Your task to perform on an android device: turn off translation in the chrome app Image 0: 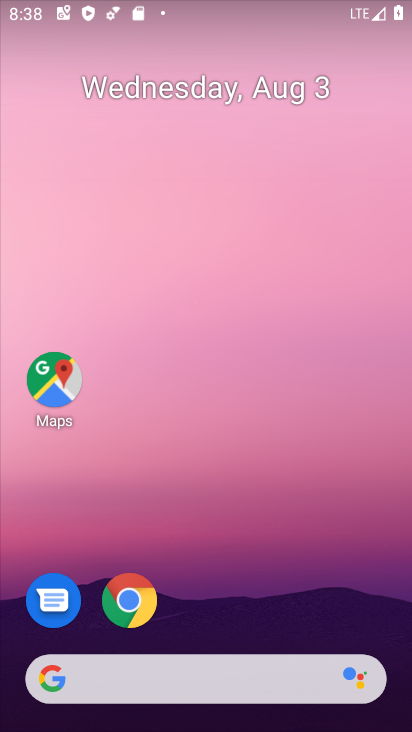
Step 0: click (134, 605)
Your task to perform on an android device: turn off translation in the chrome app Image 1: 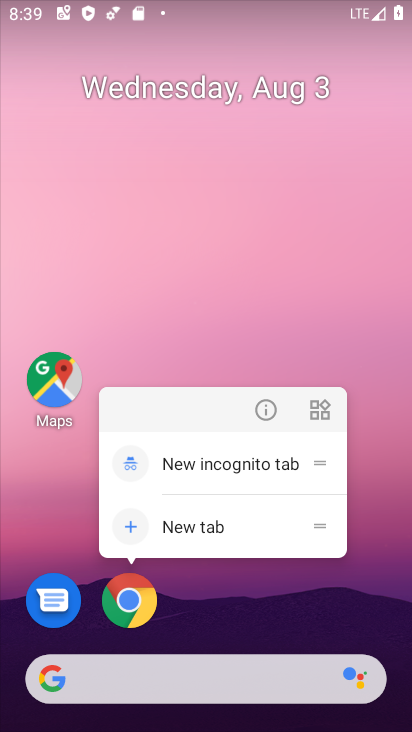
Step 1: click (139, 598)
Your task to perform on an android device: turn off translation in the chrome app Image 2: 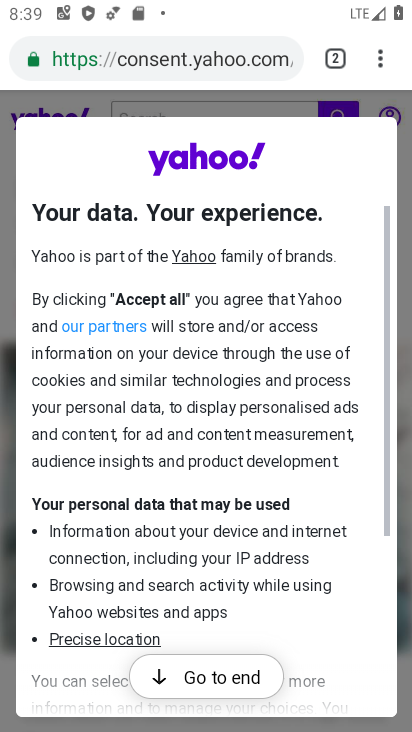
Step 2: click (378, 55)
Your task to perform on an android device: turn off translation in the chrome app Image 3: 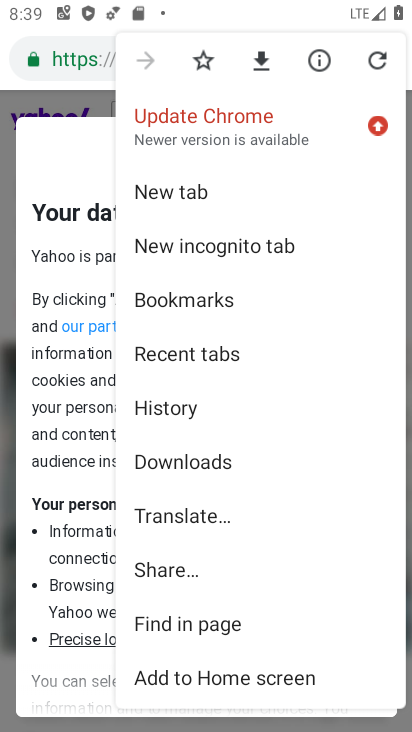
Step 3: drag from (176, 578) to (192, 292)
Your task to perform on an android device: turn off translation in the chrome app Image 4: 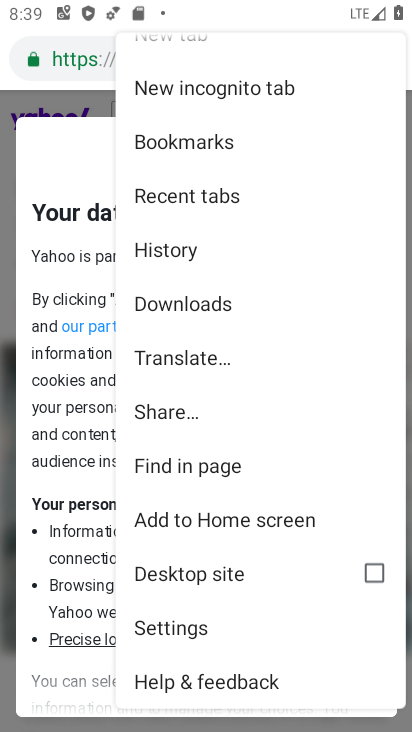
Step 4: click (179, 630)
Your task to perform on an android device: turn off translation in the chrome app Image 5: 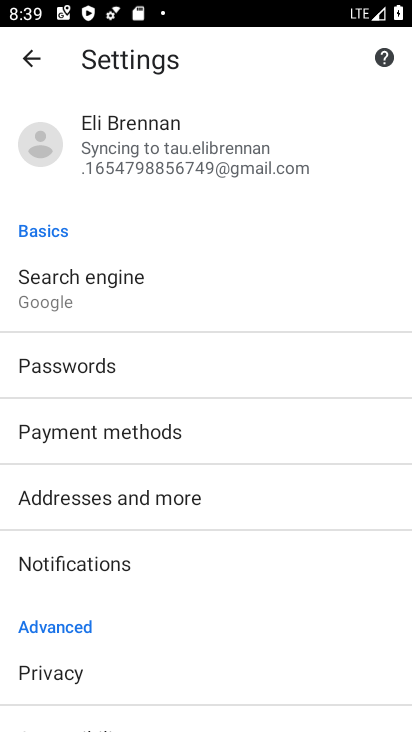
Step 5: drag from (137, 605) to (162, 214)
Your task to perform on an android device: turn off translation in the chrome app Image 6: 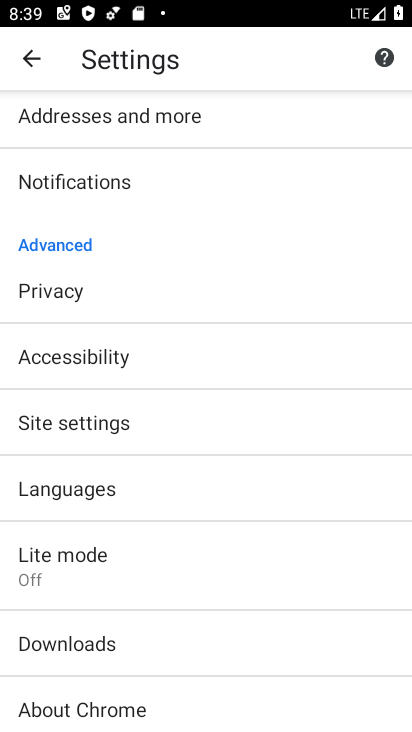
Step 6: click (97, 493)
Your task to perform on an android device: turn off translation in the chrome app Image 7: 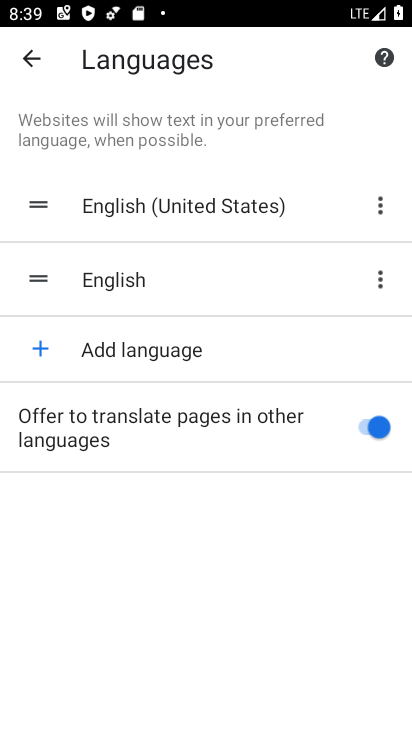
Step 7: click (345, 429)
Your task to perform on an android device: turn off translation in the chrome app Image 8: 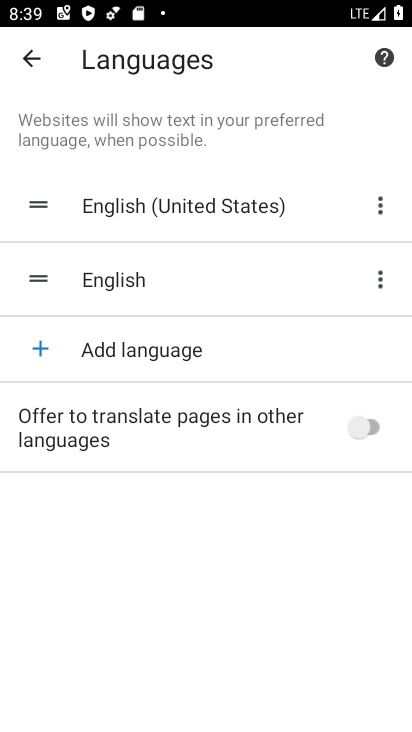
Step 8: task complete